Your task to perform on an android device: install app "Booking.com: Hotels and more" Image 0: 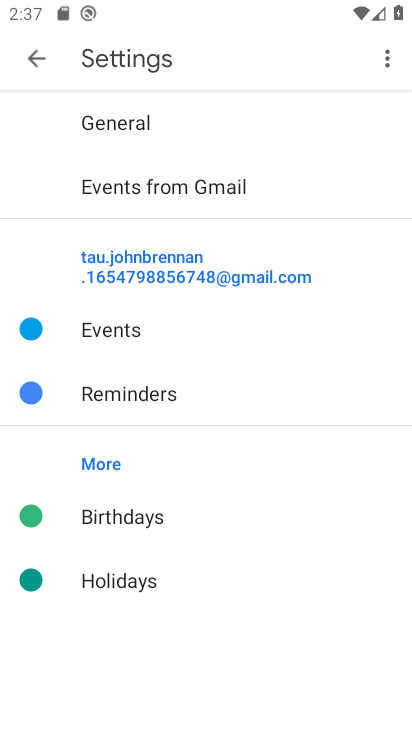
Step 0: press back button
Your task to perform on an android device: install app "Booking.com: Hotels and more" Image 1: 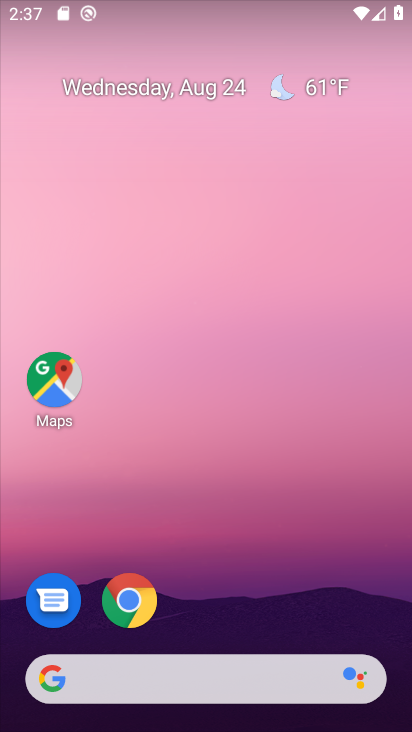
Step 1: drag from (288, 610) to (293, 85)
Your task to perform on an android device: install app "Booking.com: Hotels and more" Image 2: 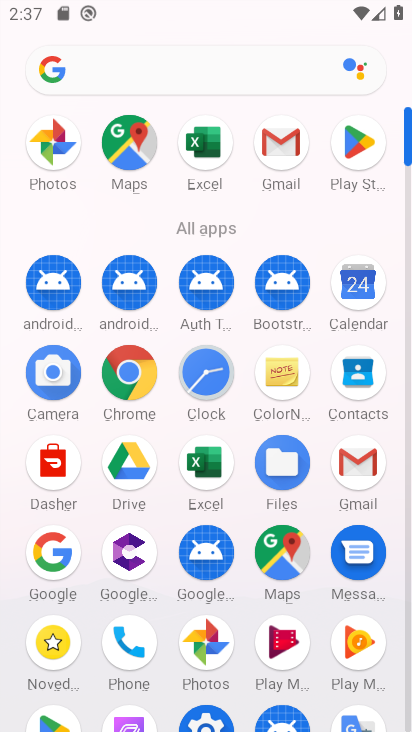
Step 2: click (345, 140)
Your task to perform on an android device: install app "Booking.com: Hotels and more" Image 3: 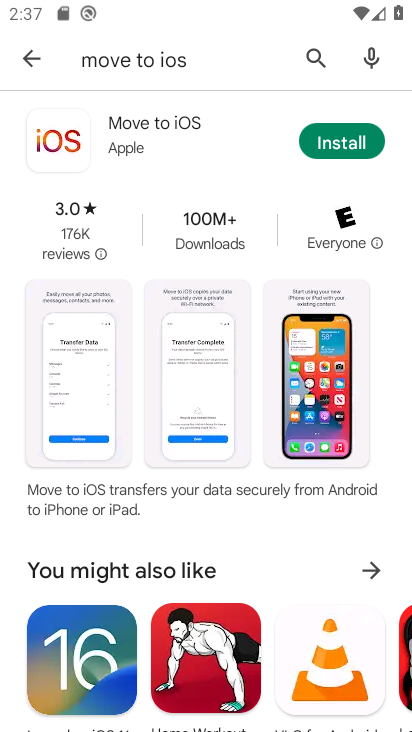
Step 3: click (319, 55)
Your task to perform on an android device: install app "Booking.com: Hotels and more" Image 4: 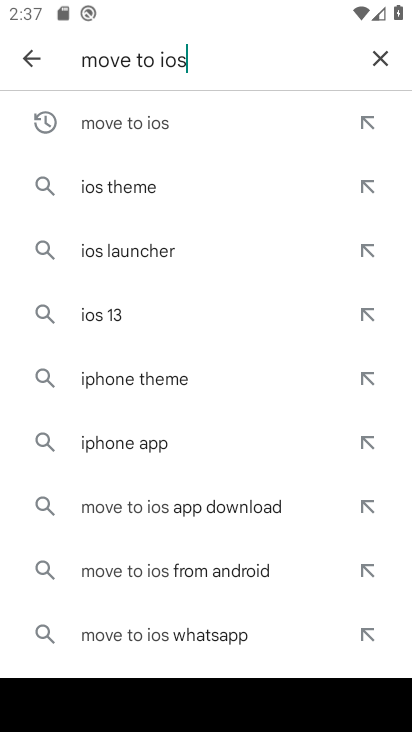
Step 4: click (388, 57)
Your task to perform on an android device: install app "Booking.com: Hotels and more" Image 5: 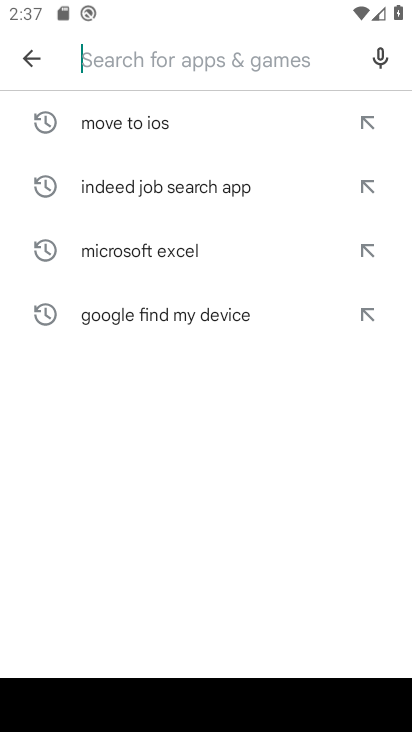
Step 5: click (134, 64)
Your task to perform on an android device: install app "Booking.com: Hotels and more" Image 6: 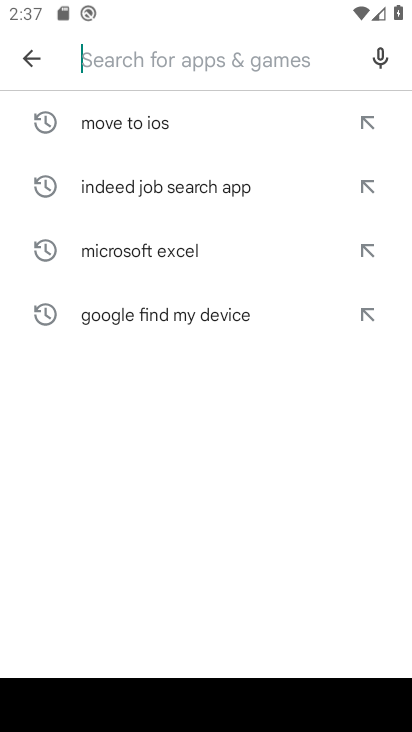
Step 6: type "Booking.com: Hotels and more"
Your task to perform on an android device: install app "Booking.com: Hotels and more" Image 7: 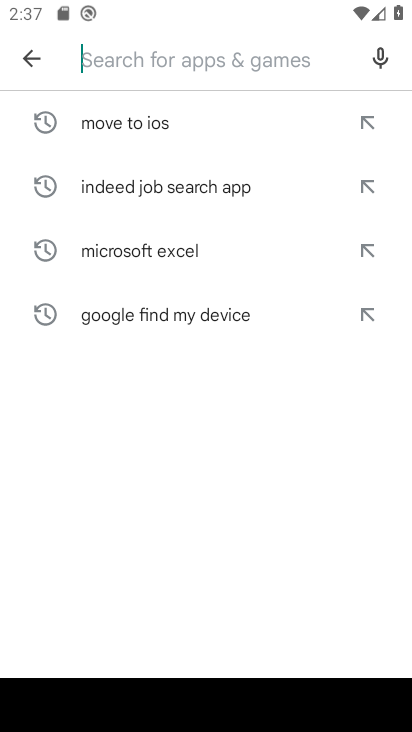
Step 7: click (290, 471)
Your task to perform on an android device: install app "Booking.com: Hotels and more" Image 8: 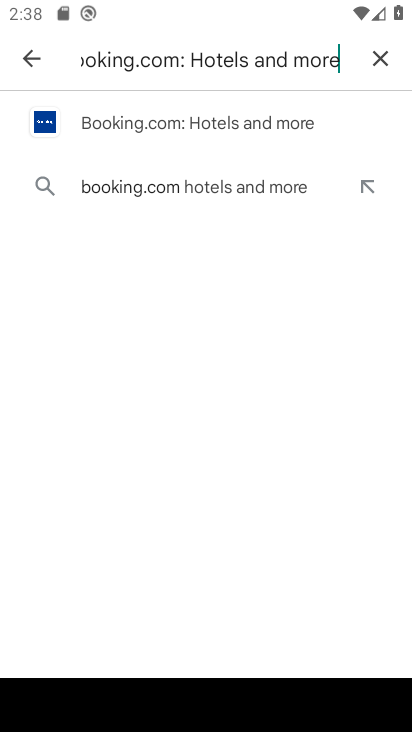
Step 8: click (168, 121)
Your task to perform on an android device: install app "Booking.com: Hotels and more" Image 9: 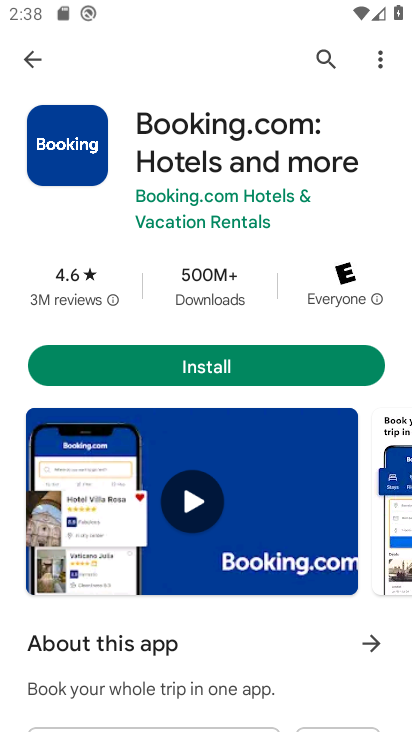
Step 9: click (218, 371)
Your task to perform on an android device: install app "Booking.com: Hotels and more" Image 10: 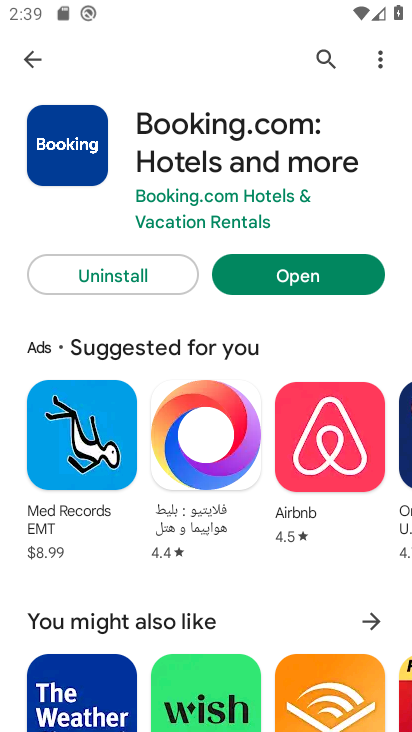
Step 10: task complete